Your task to perform on an android device: Is it going to rain today? Image 0: 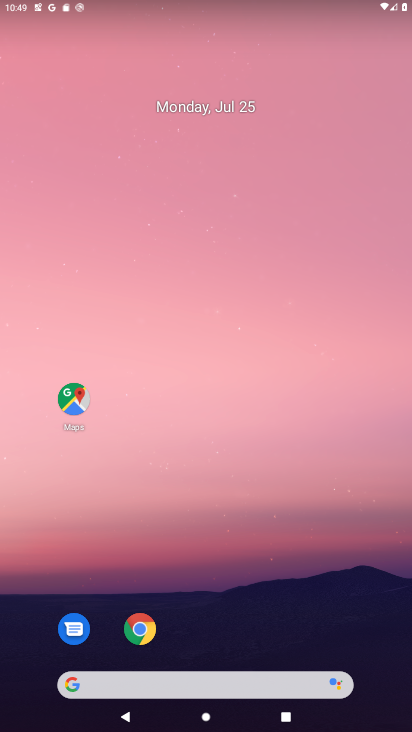
Step 0: click (163, 691)
Your task to perform on an android device: Is it going to rain today? Image 1: 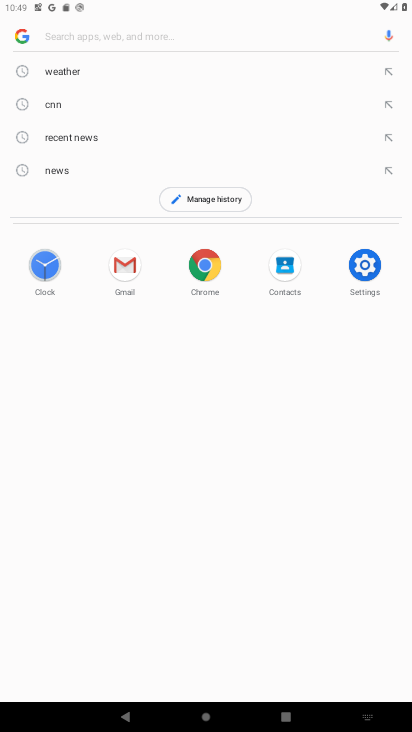
Step 1: click (65, 61)
Your task to perform on an android device: Is it going to rain today? Image 2: 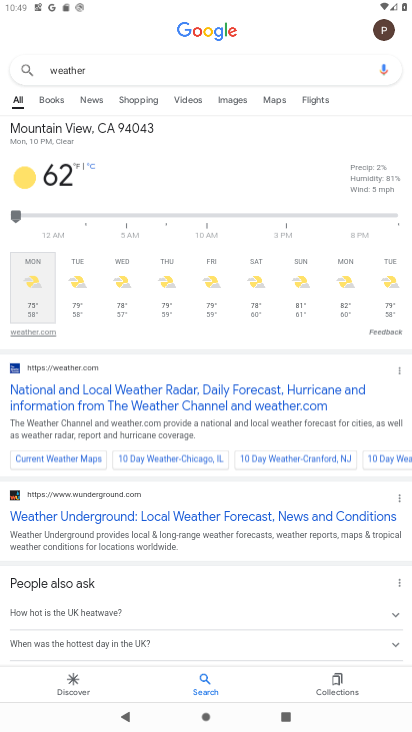
Step 2: task complete